Your task to perform on an android device: Open Maps and search for coffee Image 0: 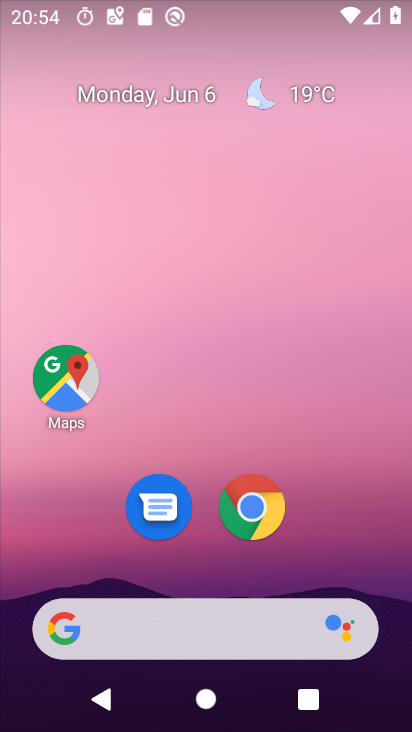
Step 0: press home button
Your task to perform on an android device: Open Maps and search for coffee Image 1: 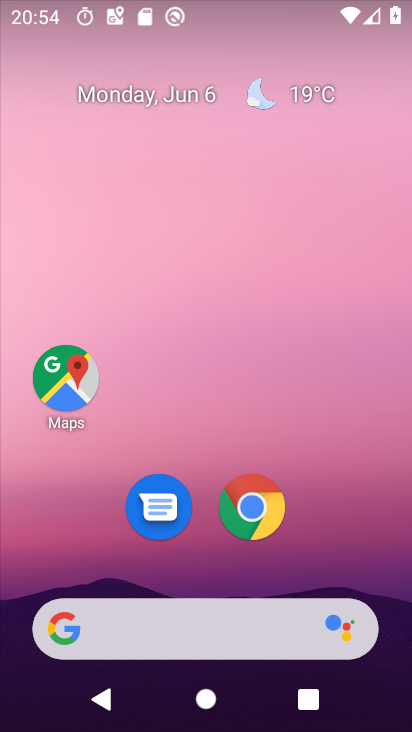
Step 1: drag from (358, 539) to (360, 0)
Your task to perform on an android device: Open Maps and search for coffee Image 2: 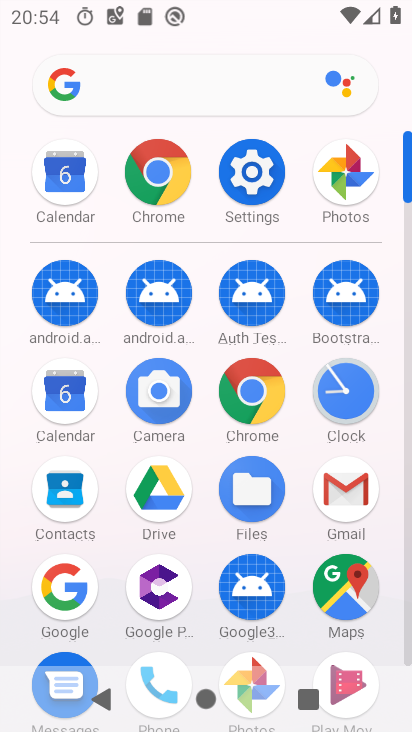
Step 2: click (348, 573)
Your task to perform on an android device: Open Maps and search for coffee Image 3: 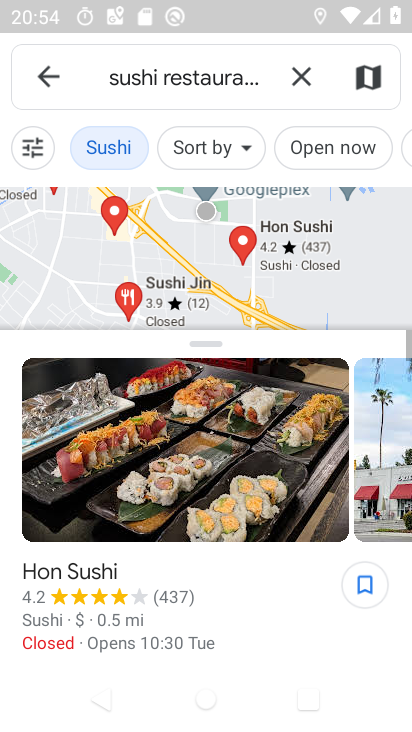
Step 3: click (34, 78)
Your task to perform on an android device: Open Maps and search for coffee Image 4: 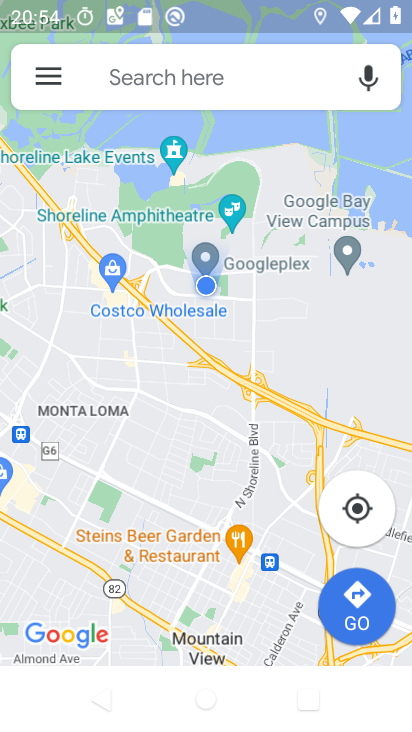
Step 4: click (165, 84)
Your task to perform on an android device: Open Maps and search for coffee Image 5: 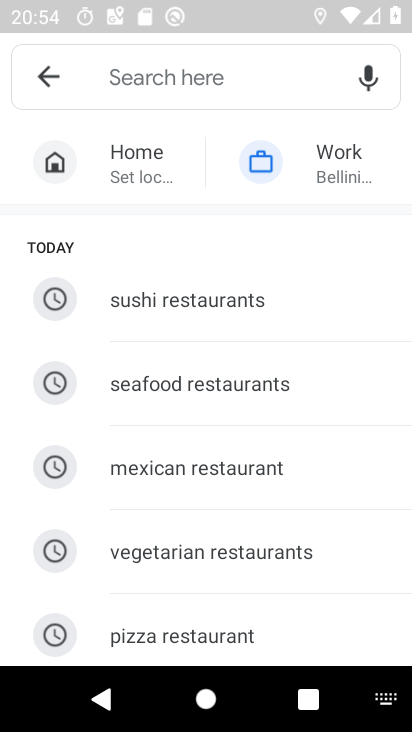
Step 5: type "coffee"
Your task to perform on an android device: Open Maps and search for coffee Image 6: 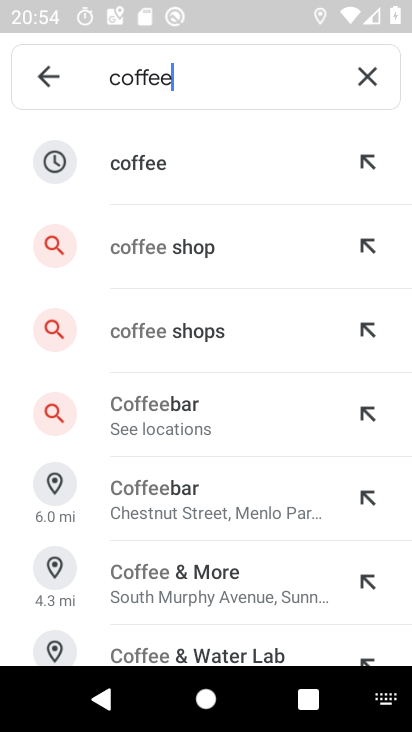
Step 6: click (265, 171)
Your task to perform on an android device: Open Maps and search for coffee Image 7: 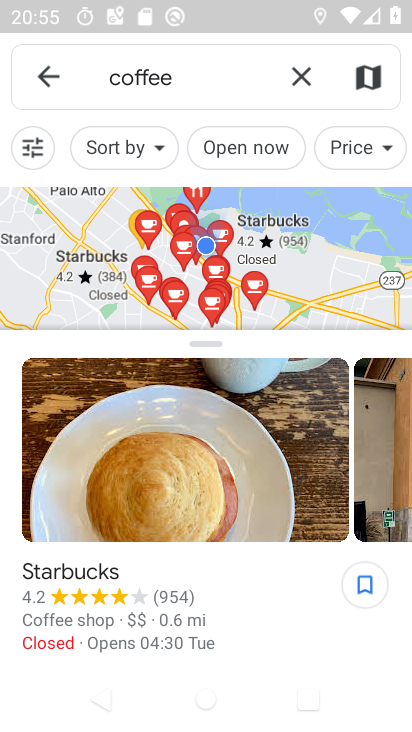
Step 7: task complete